Your task to perform on an android device: turn on airplane mode Image 0: 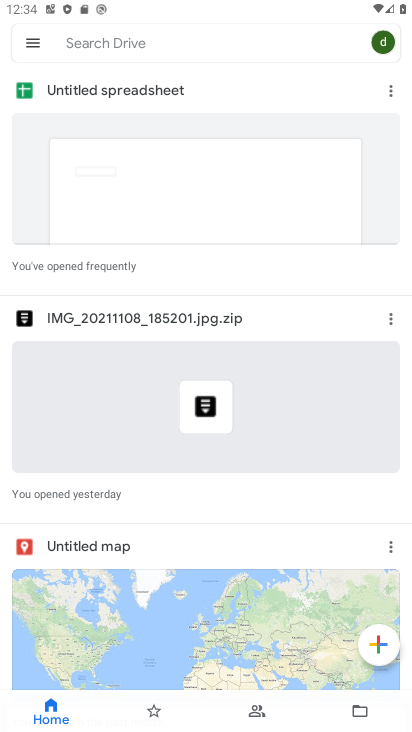
Step 0: press home button
Your task to perform on an android device: turn on airplane mode Image 1: 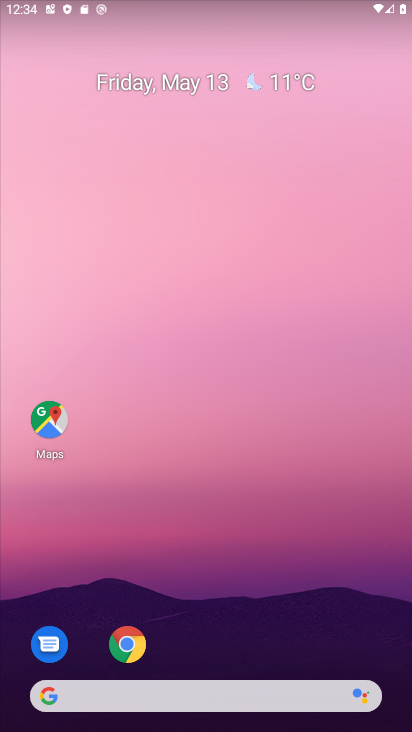
Step 1: drag from (207, 727) to (197, 81)
Your task to perform on an android device: turn on airplane mode Image 2: 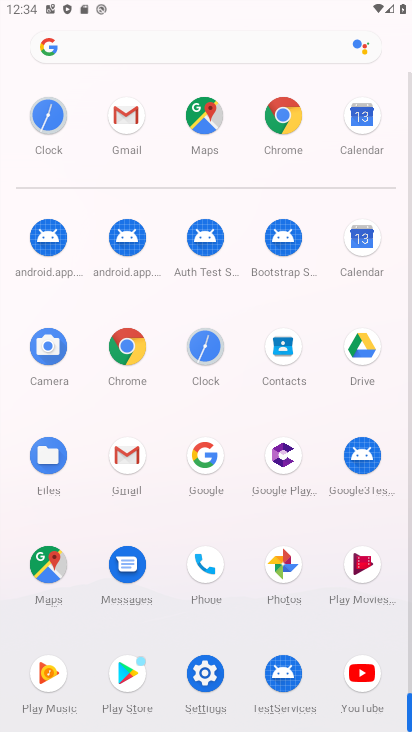
Step 2: click (208, 672)
Your task to perform on an android device: turn on airplane mode Image 3: 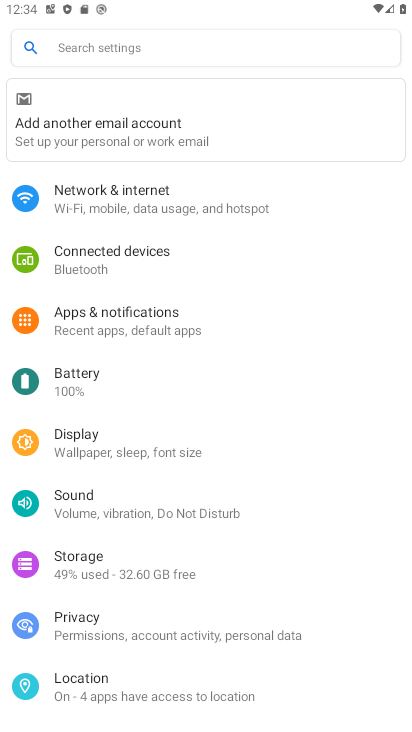
Step 3: click (137, 200)
Your task to perform on an android device: turn on airplane mode Image 4: 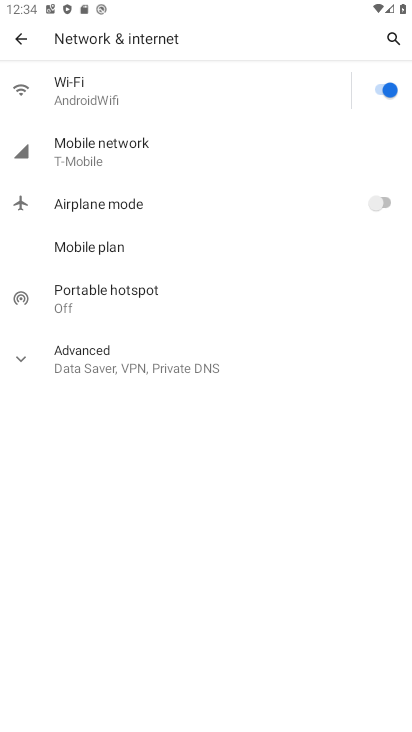
Step 4: click (382, 202)
Your task to perform on an android device: turn on airplane mode Image 5: 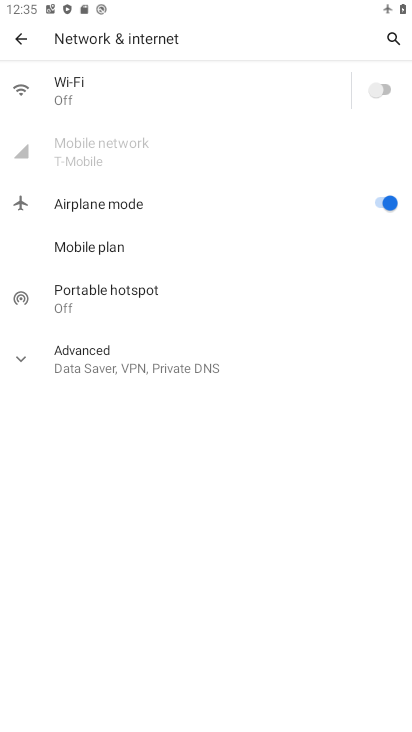
Step 5: task complete